Your task to perform on an android device: Open Reddit.com Image 0: 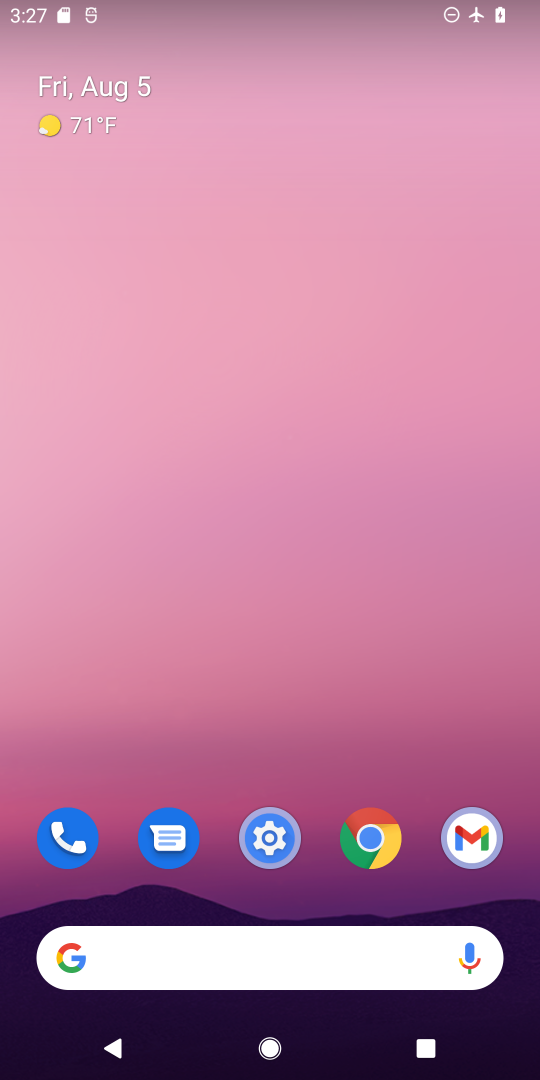
Step 0: drag from (458, 759) to (367, 41)
Your task to perform on an android device: Open Reddit.com Image 1: 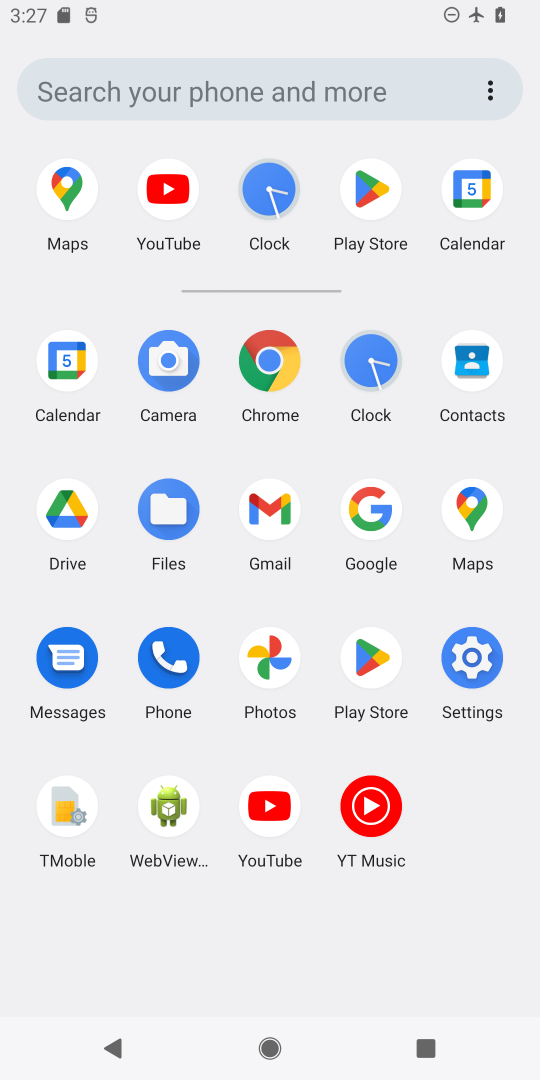
Step 1: click (267, 368)
Your task to perform on an android device: Open Reddit.com Image 2: 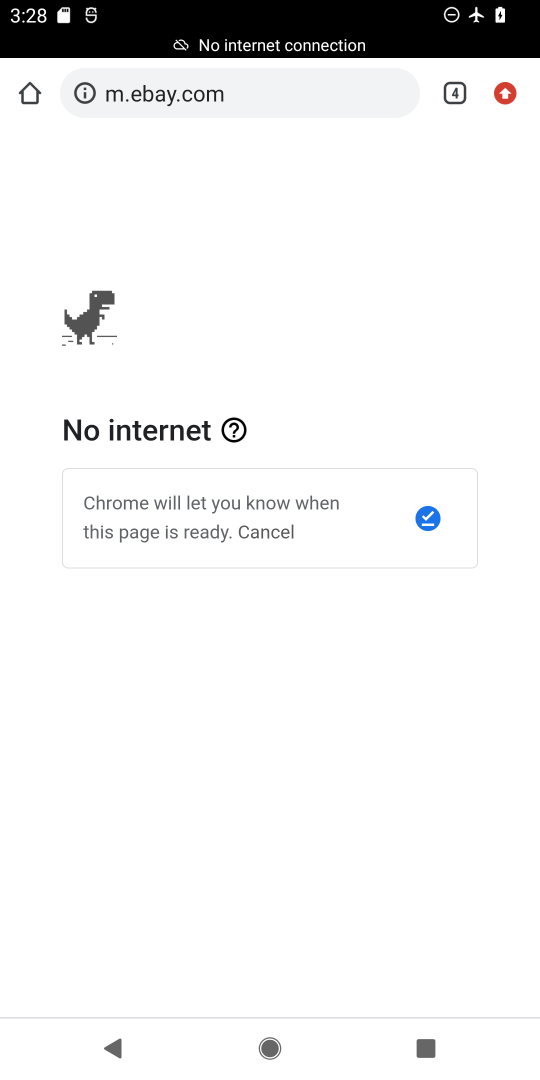
Step 2: click (249, 101)
Your task to perform on an android device: Open Reddit.com Image 3: 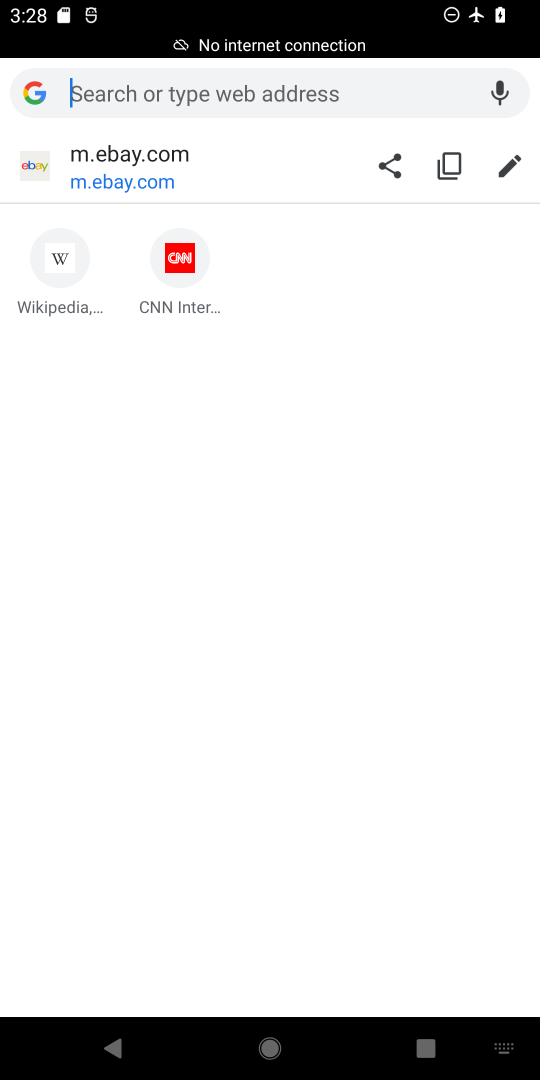
Step 3: type "reddit.com"
Your task to perform on an android device: Open Reddit.com Image 4: 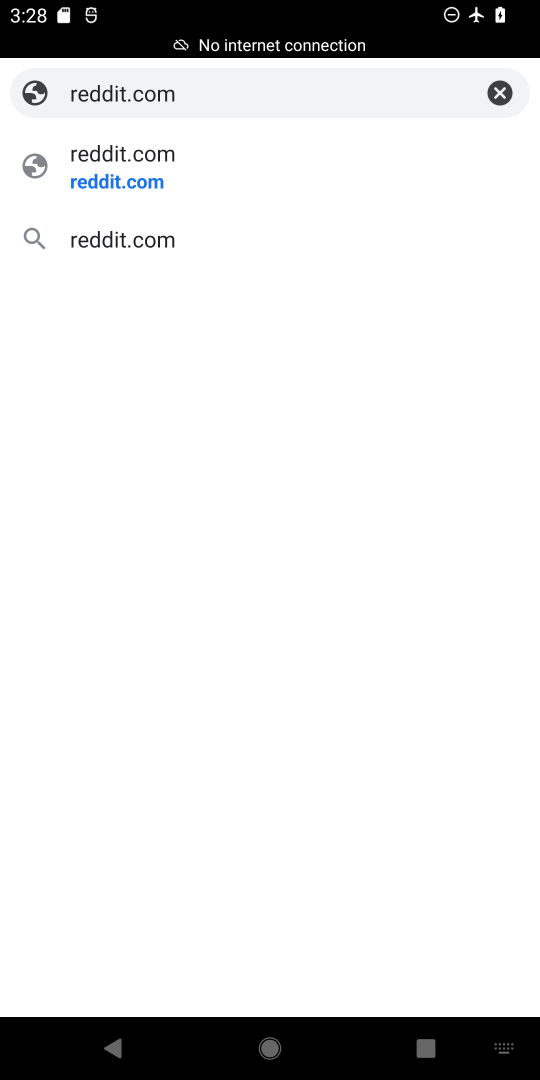
Step 4: click (94, 179)
Your task to perform on an android device: Open Reddit.com Image 5: 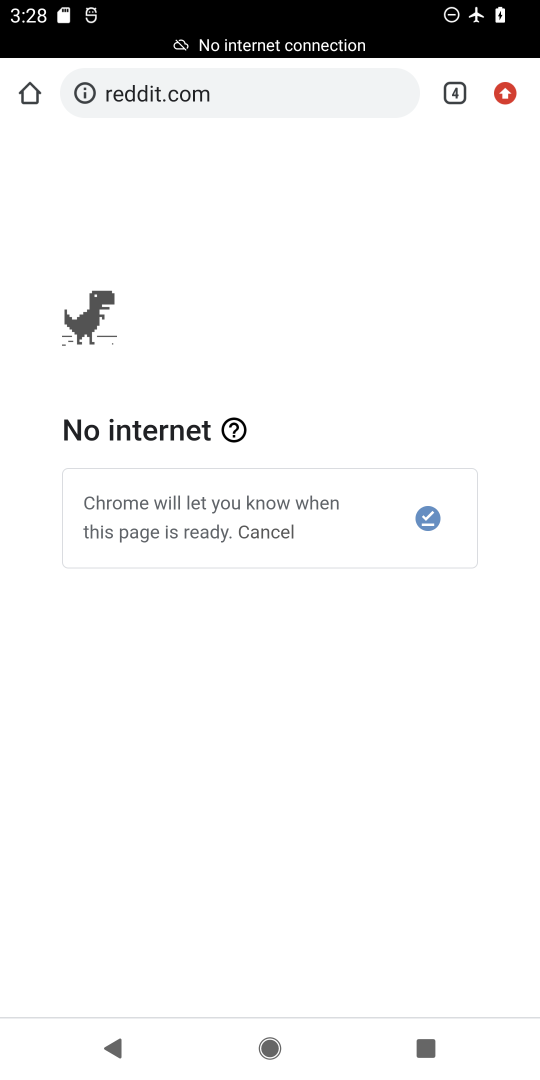
Step 5: task complete